Your task to perform on an android device: What's the news in Venezuela? Image 0: 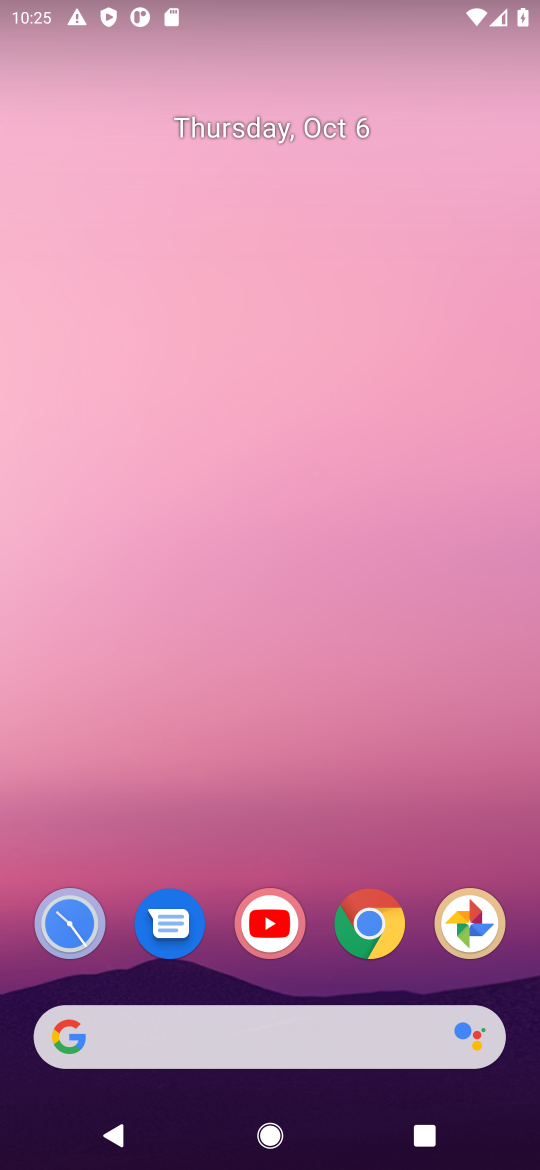
Step 0: click (382, 928)
Your task to perform on an android device: What's the news in Venezuela? Image 1: 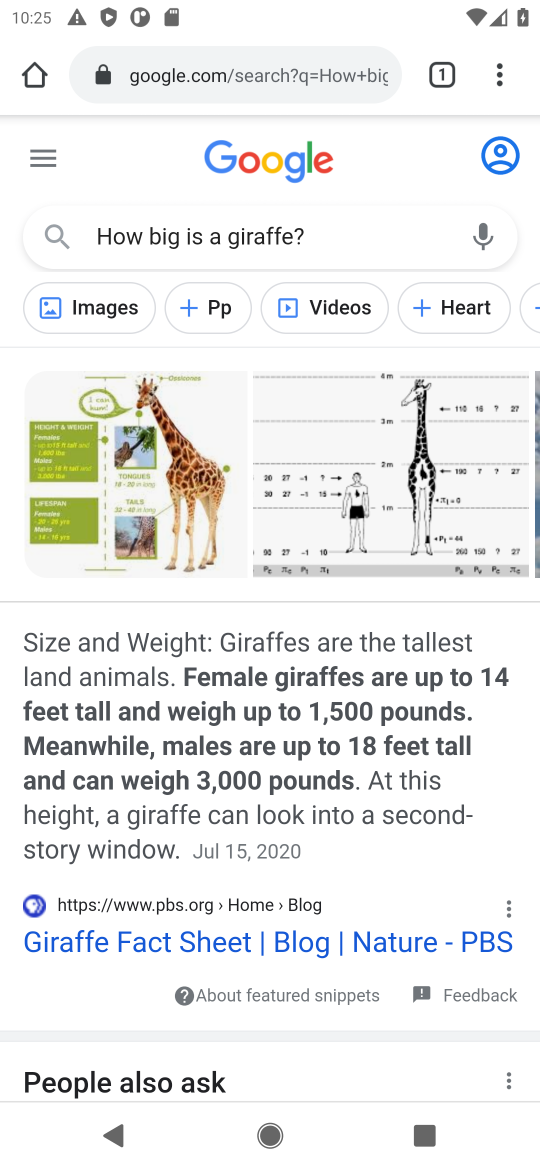
Step 1: click (251, 70)
Your task to perform on an android device: What's the news in Venezuela? Image 2: 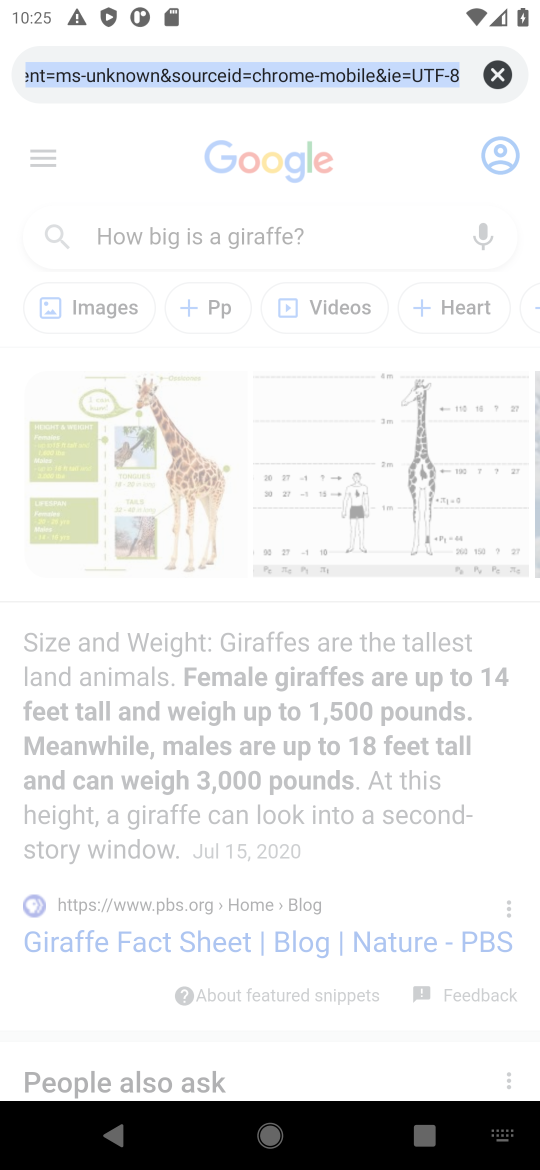
Step 2: click (499, 66)
Your task to perform on an android device: What's the news in Venezuela? Image 3: 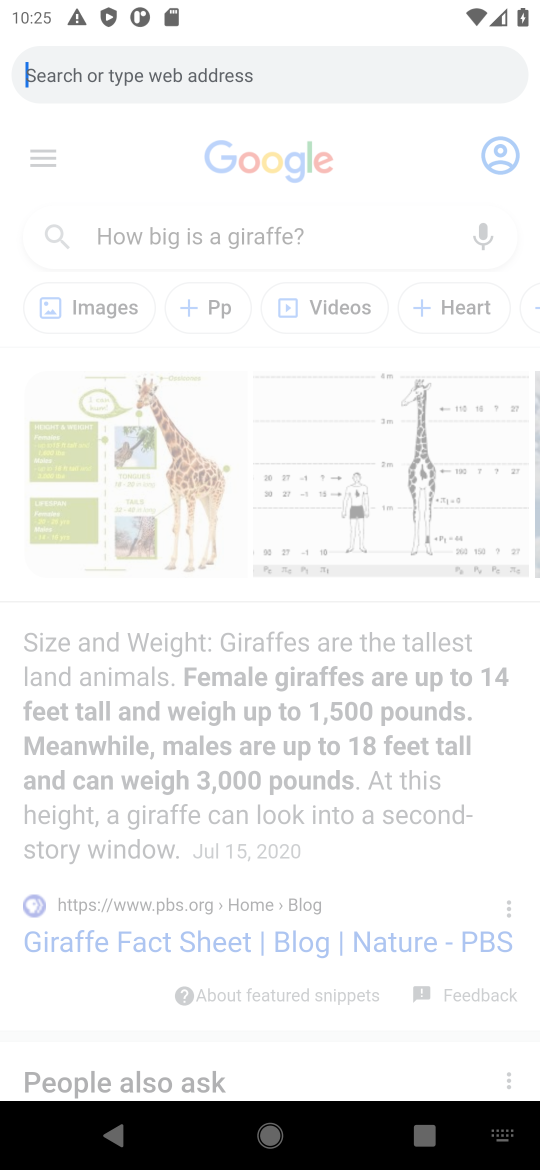
Step 3: type "news in Venezuela"
Your task to perform on an android device: What's the news in Venezuela? Image 4: 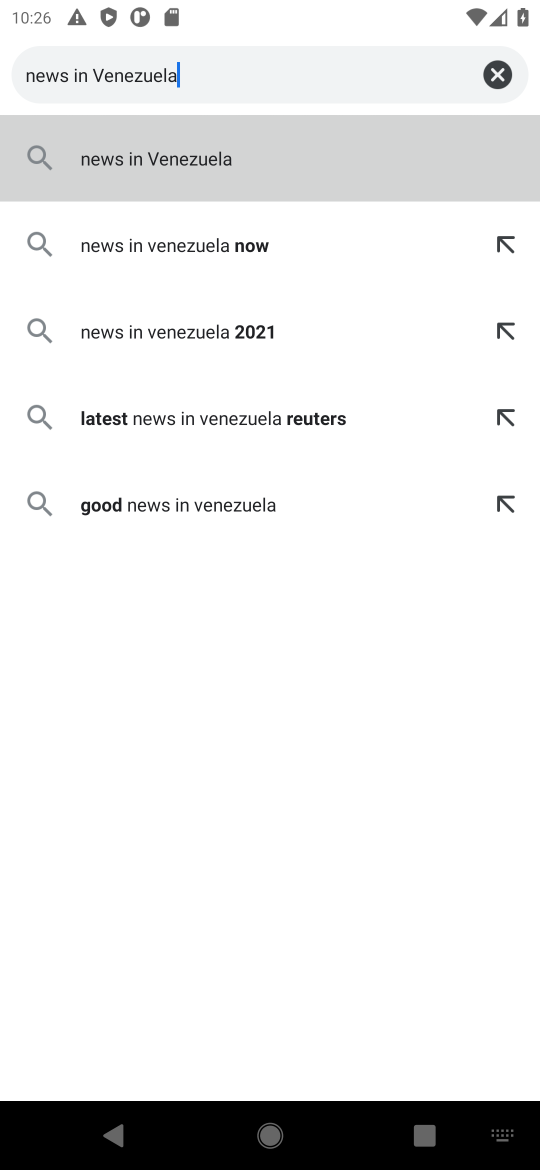
Step 4: click (129, 161)
Your task to perform on an android device: What's the news in Venezuela? Image 5: 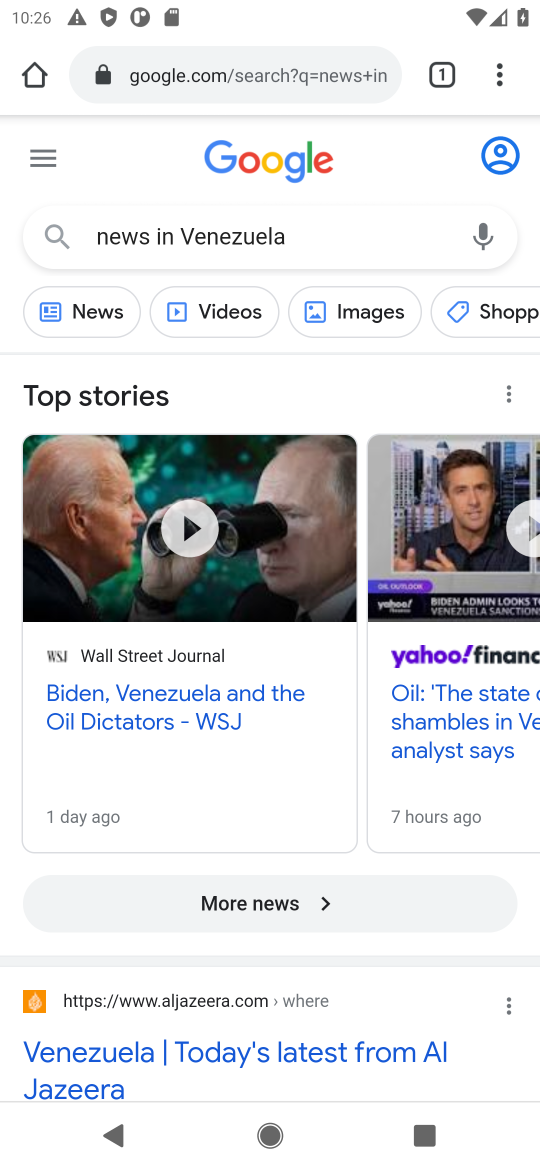
Step 5: drag from (338, 814) to (369, 464)
Your task to perform on an android device: What's the news in Venezuela? Image 6: 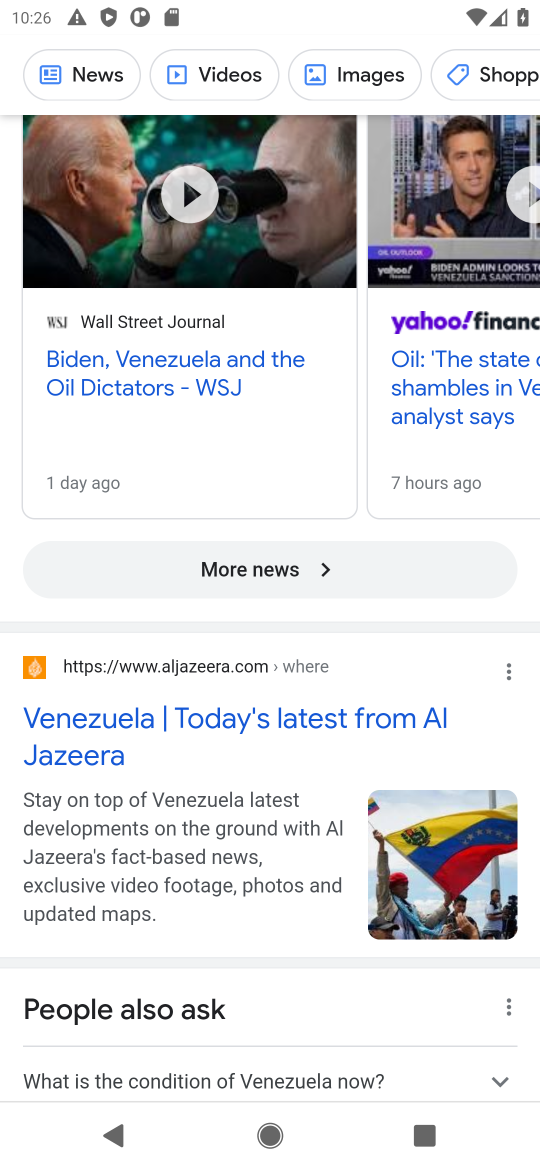
Step 6: click (152, 724)
Your task to perform on an android device: What's the news in Venezuela? Image 7: 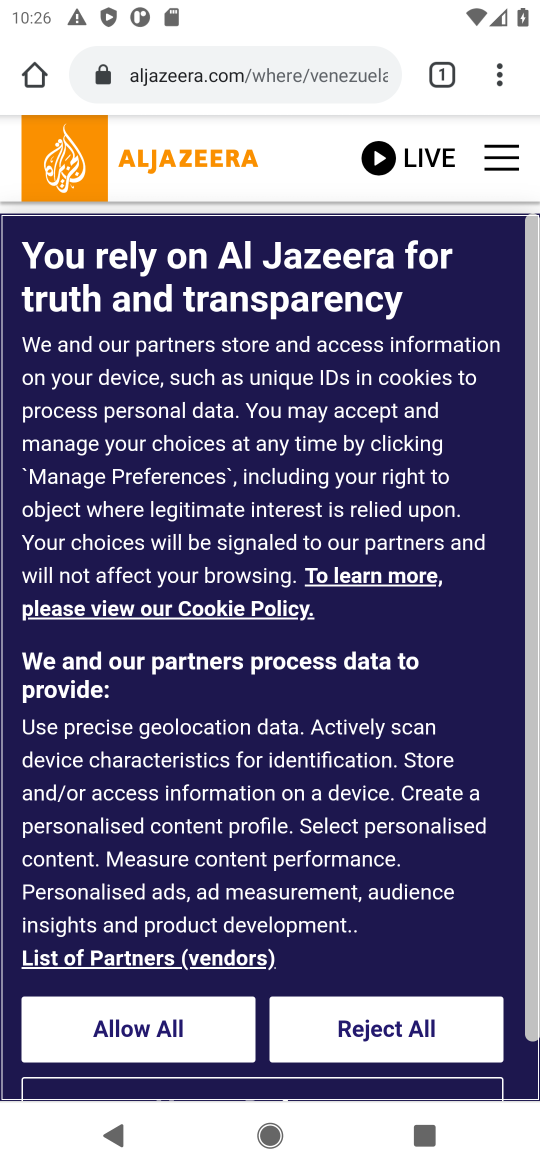
Step 7: task complete